Your task to perform on an android device: visit the assistant section in the google photos Image 0: 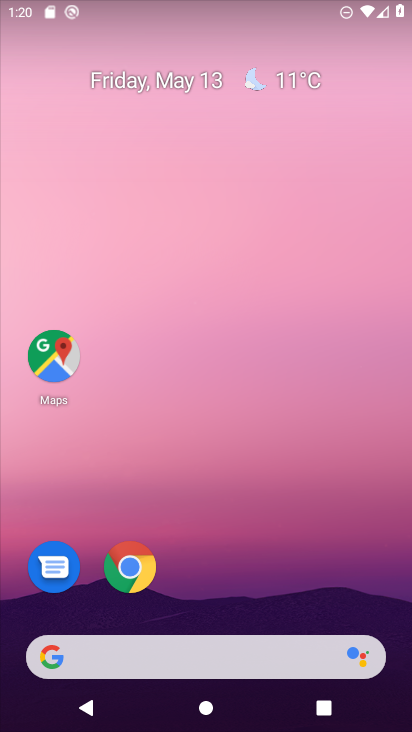
Step 0: drag from (218, 612) to (224, 91)
Your task to perform on an android device: visit the assistant section in the google photos Image 1: 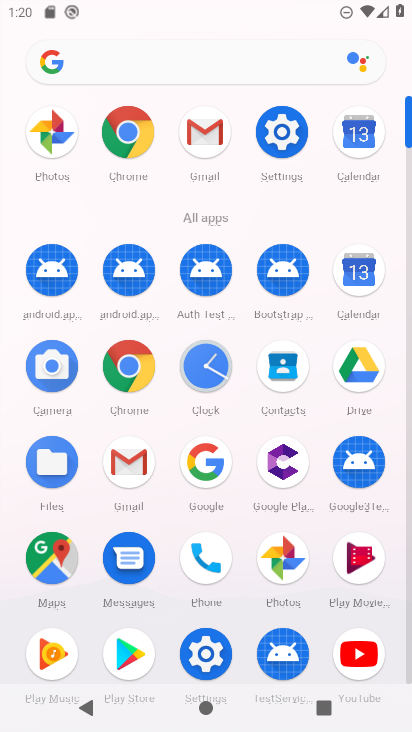
Step 1: click (278, 547)
Your task to perform on an android device: visit the assistant section in the google photos Image 2: 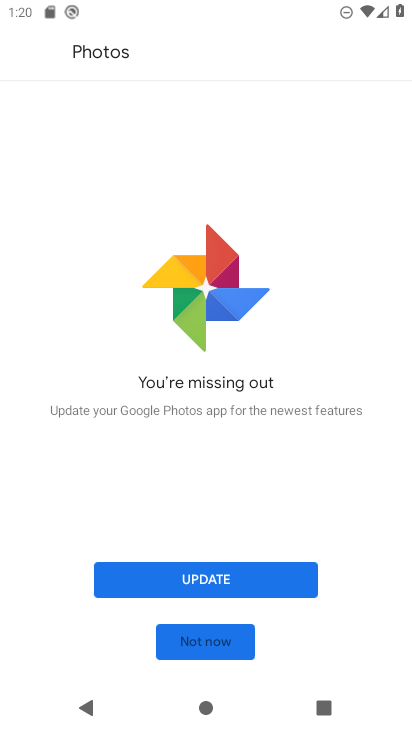
Step 2: click (204, 577)
Your task to perform on an android device: visit the assistant section in the google photos Image 3: 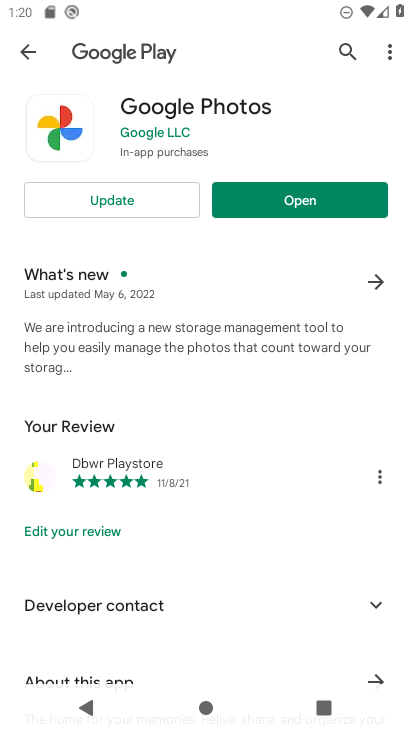
Step 3: click (107, 201)
Your task to perform on an android device: visit the assistant section in the google photos Image 4: 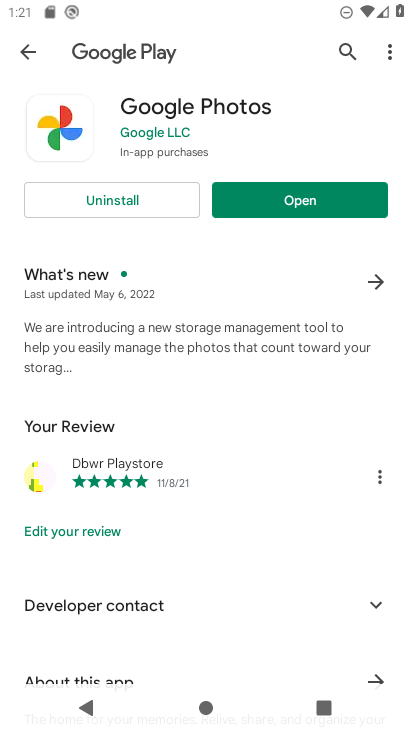
Step 4: click (309, 202)
Your task to perform on an android device: visit the assistant section in the google photos Image 5: 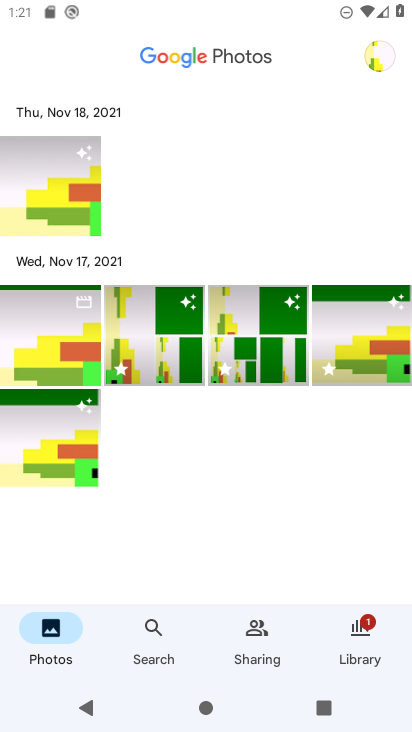
Step 5: click (153, 626)
Your task to perform on an android device: visit the assistant section in the google photos Image 6: 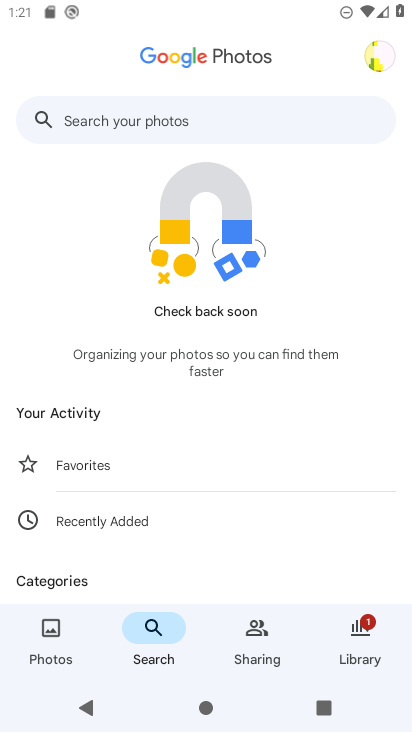
Step 6: click (134, 114)
Your task to perform on an android device: visit the assistant section in the google photos Image 7: 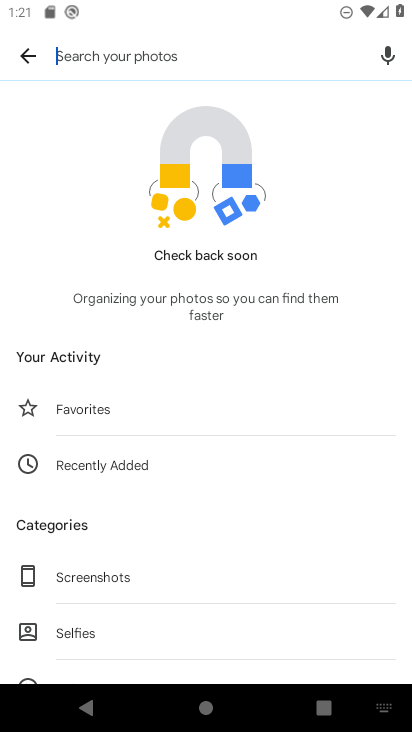
Step 7: type "assistant"
Your task to perform on an android device: visit the assistant section in the google photos Image 8: 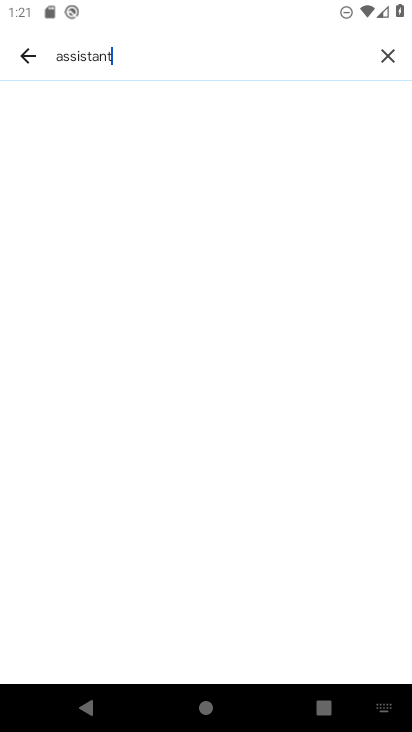
Step 8: task complete